Your task to perform on an android device: Open maps Image 0: 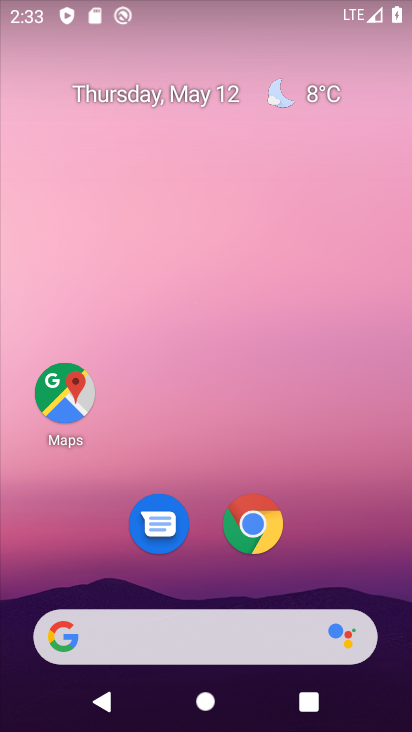
Step 0: click (69, 393)
Your task to perform on an android device: Open maps Image 1: 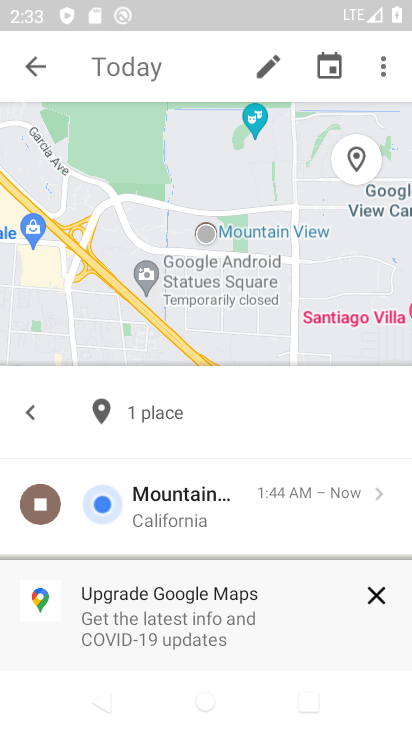
Step 1: click (33, 54)
Your task to perform on an android device: Open maps Image 2: 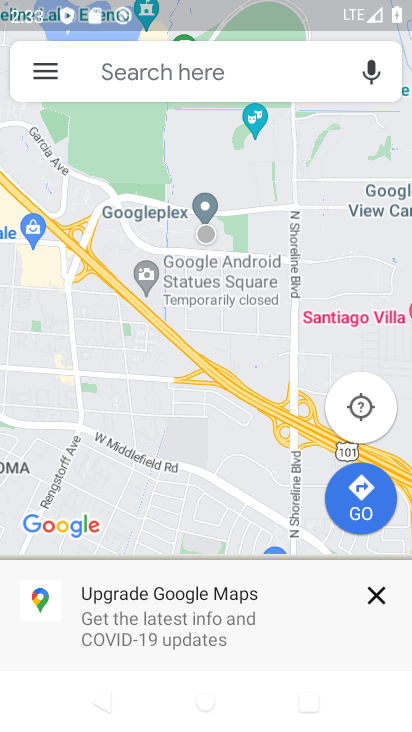
Step 2: task complete